Your task to perform on an android device: Go to eBay Image 0: 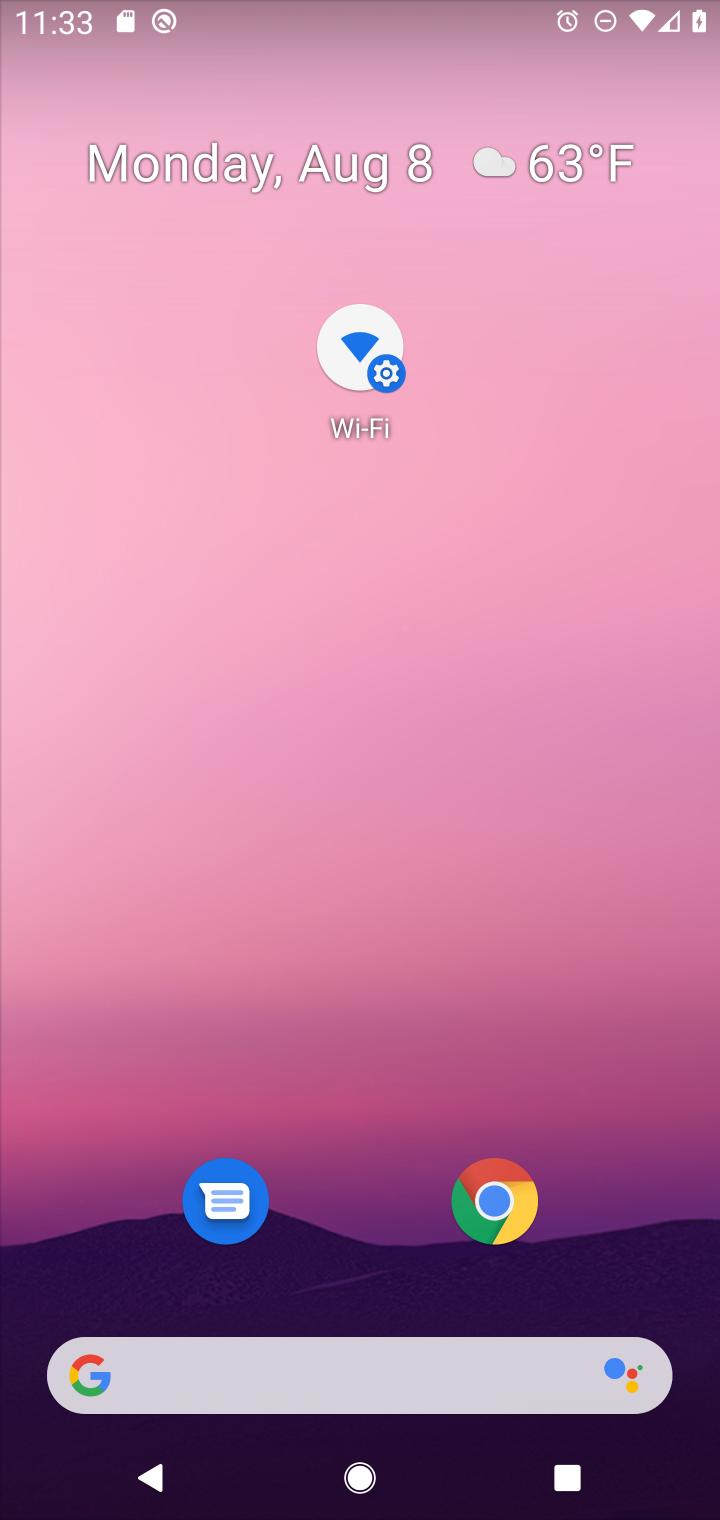
Step 0: drag from (602, 1233) to (623, 411)
Your task to perform on an android device: Go to eBay Image 1: 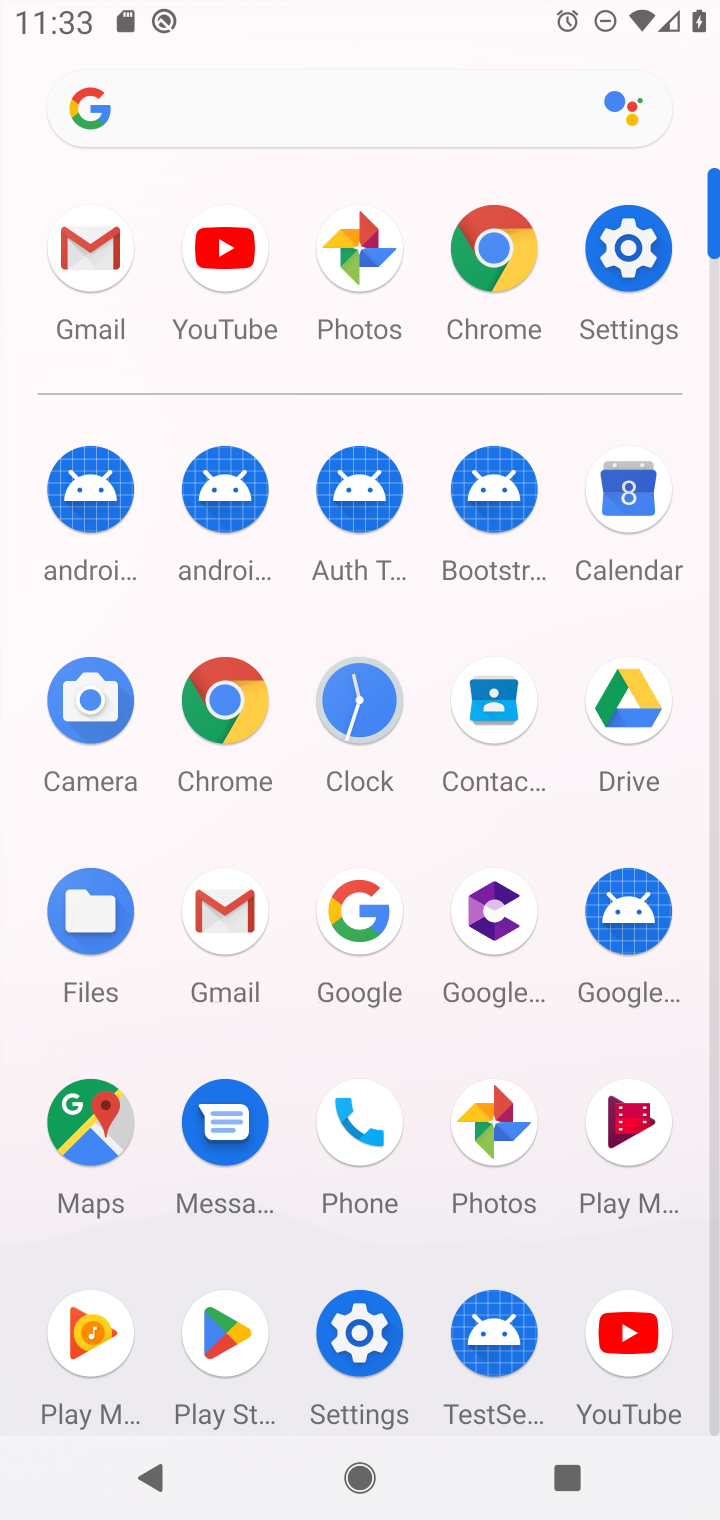
Step 1: click (502, 274)
Your task to perform on an android device: Go to eBay Image 2: 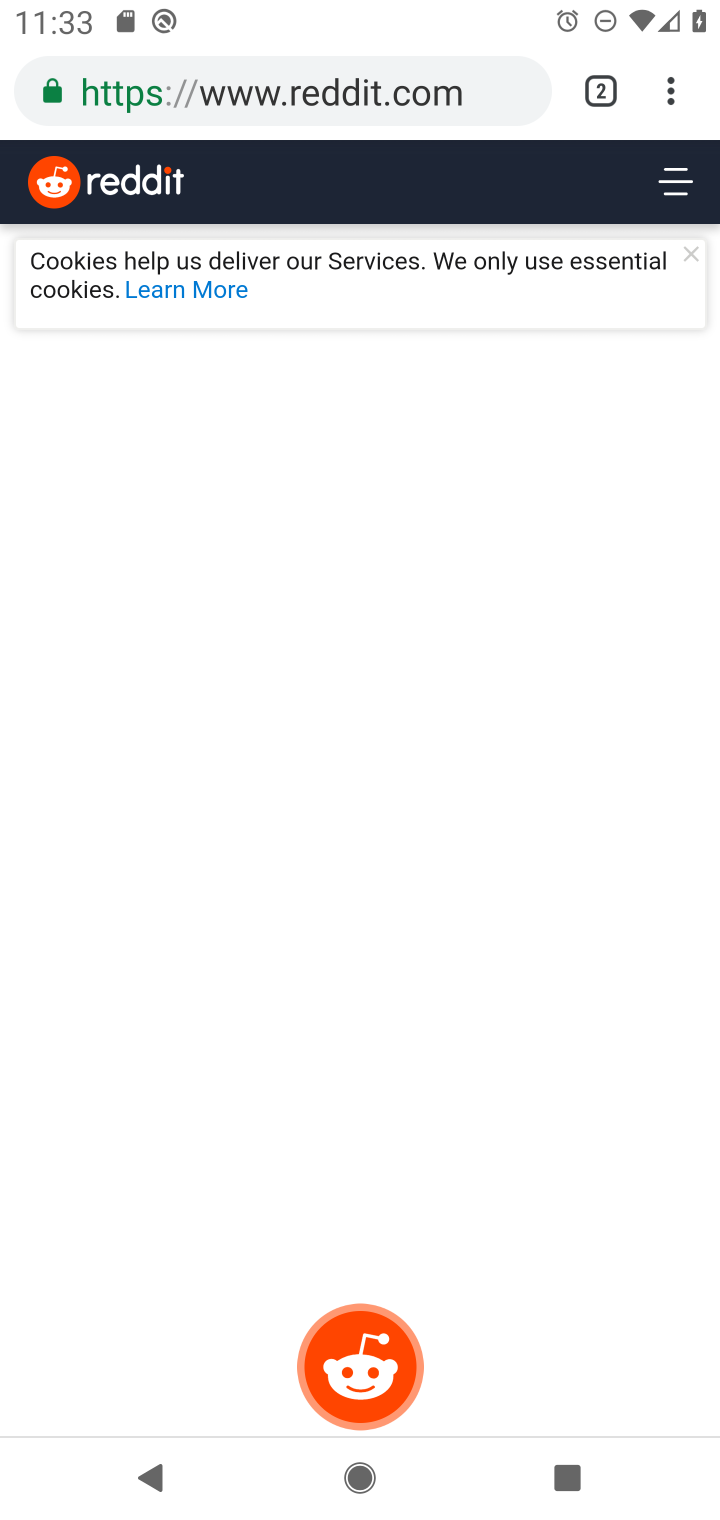
Step 2: click (383, 85)
Your task to perform on an android device: Go to eBay Image 3: 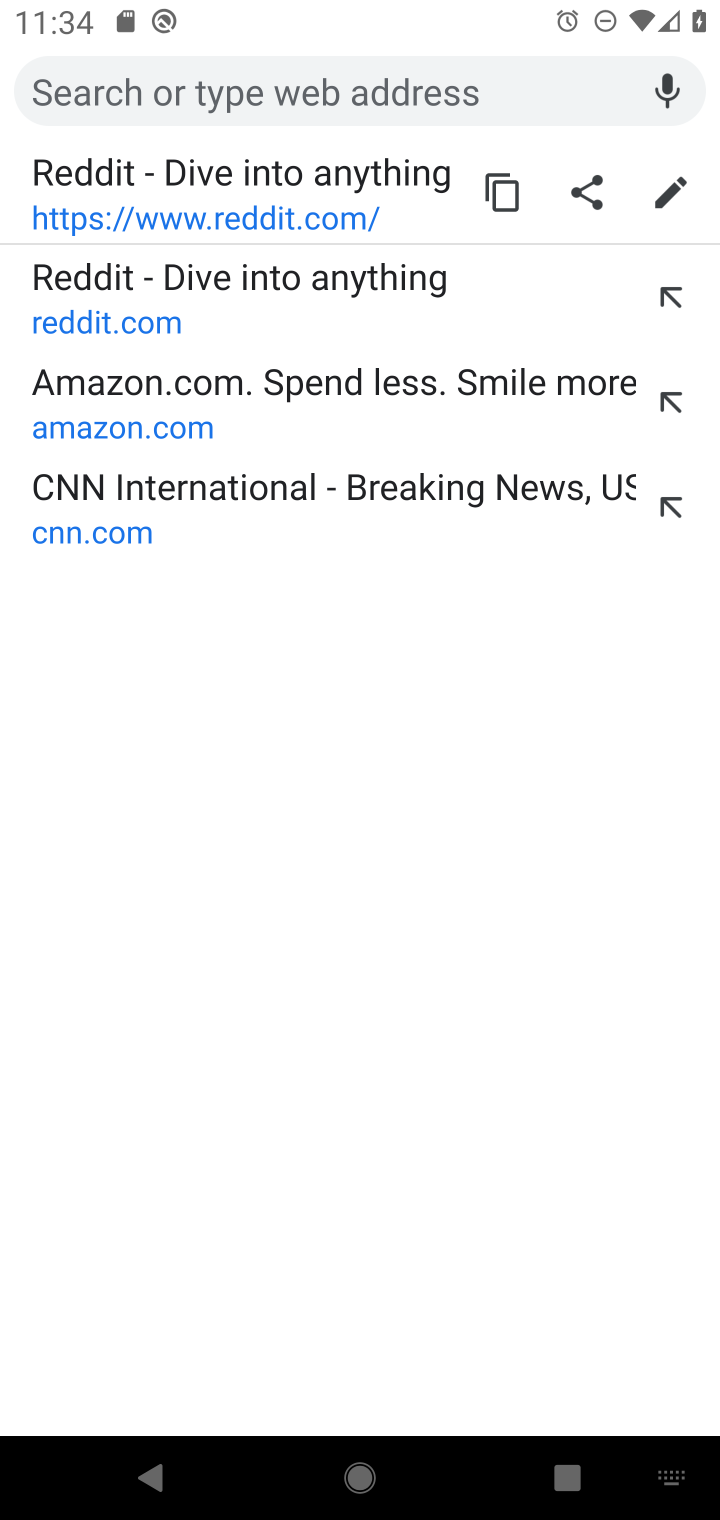
Step 3: type "ebay"
Your task to perform on an android device: Go to eBay Image 4: 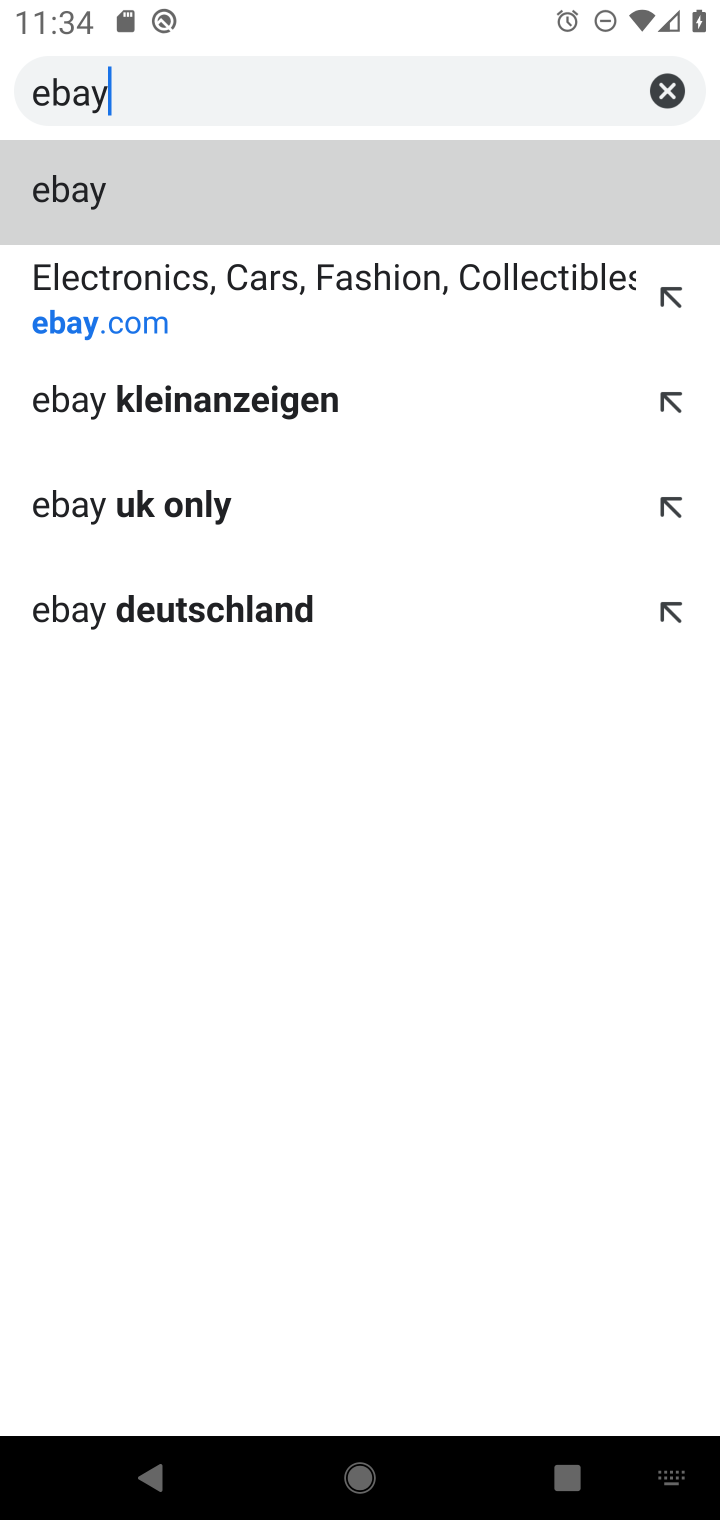
Step 4: click (479, 183)
Your task to perform on an android device: Go to eBay Image 5: 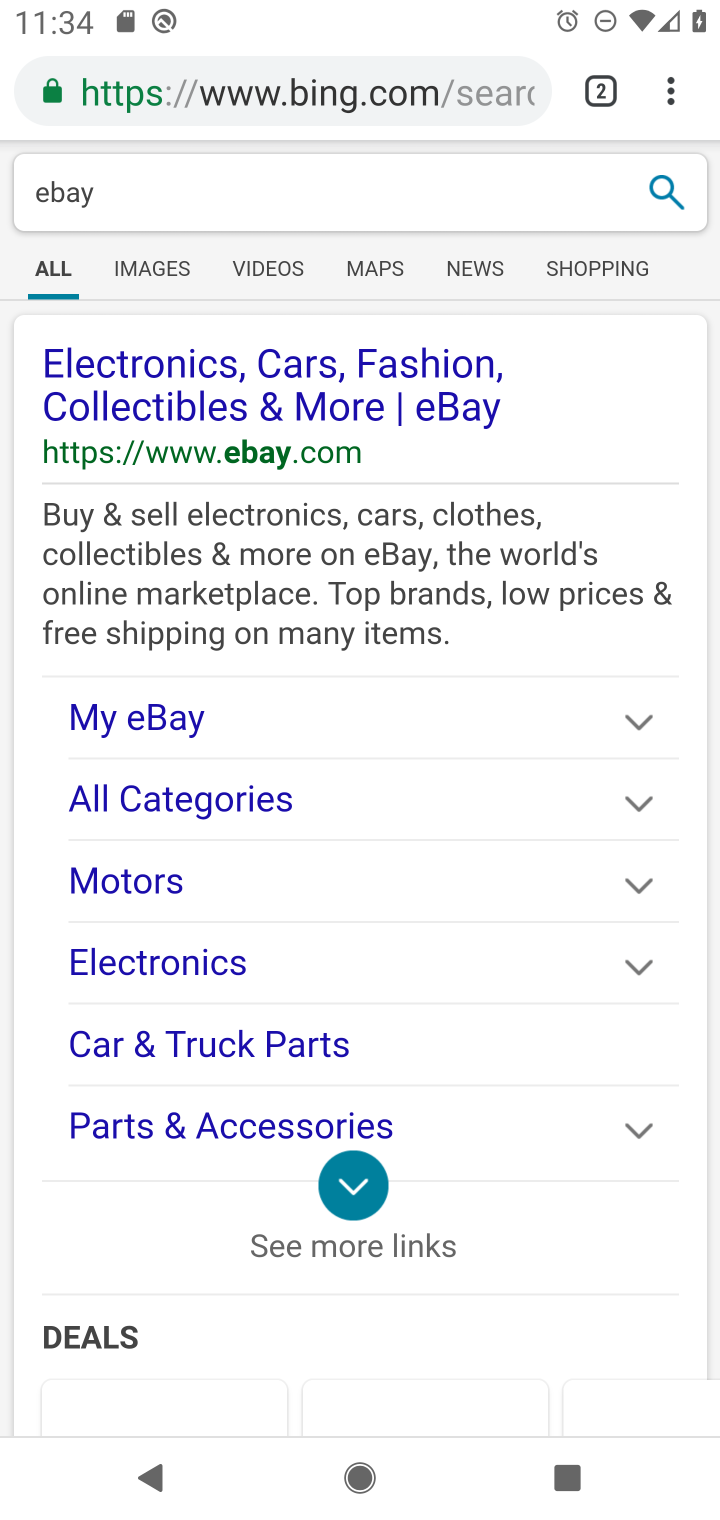
Step 5: task complete